Your task to perform on an android device: Go to battery settings Image 0: 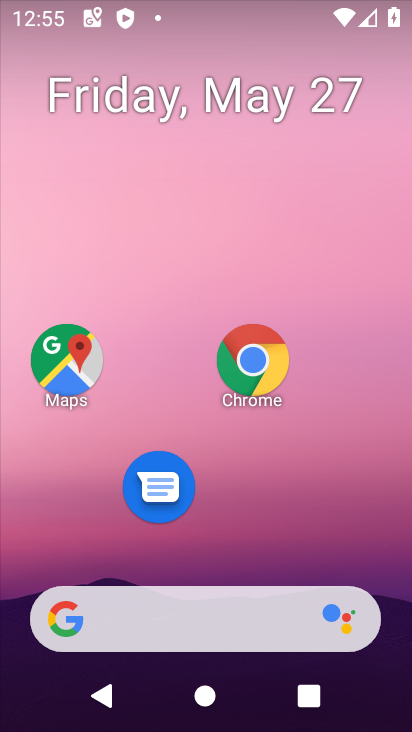
Step 0: drag from (237, 519) to (233, 53)
Your task to perform on an android device: Go to battery settings Image 1: 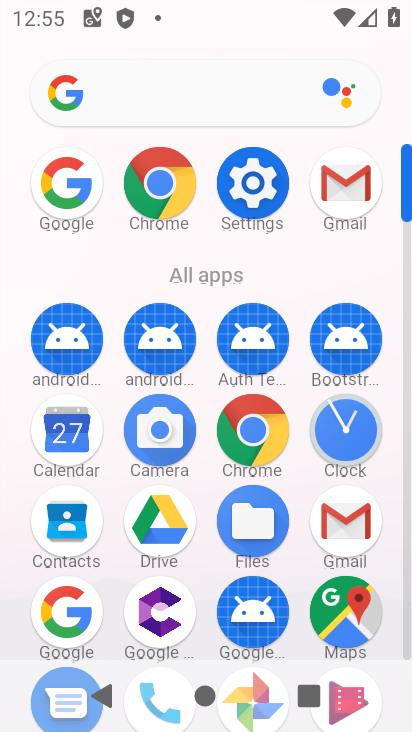
Step 1: click (255, 181)
Your task to perform on an android device: Go to battery settings Image 2: 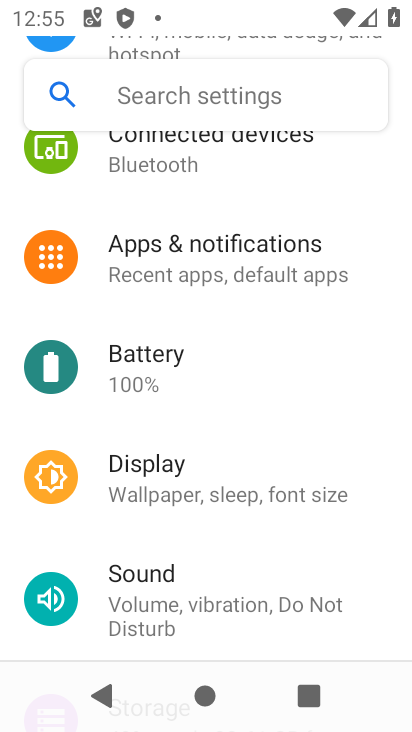
Step 2: click (178, 372)
Your task to perform on an android device: Go to battery settings Image 3: 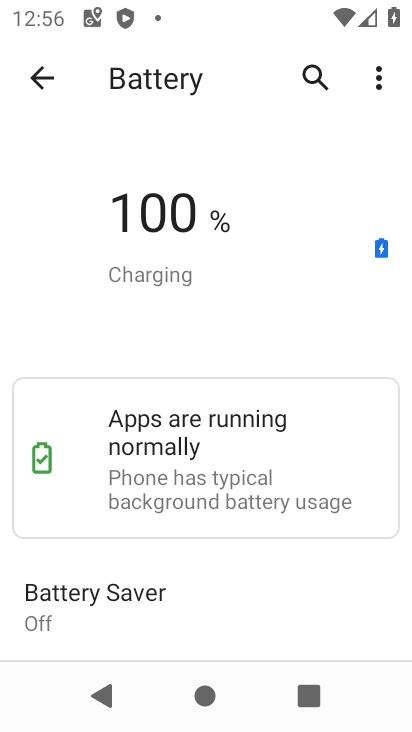
Step 3: task complete